Your task to perform on an android device: Open the calendar and show me this week's events? Image 0: 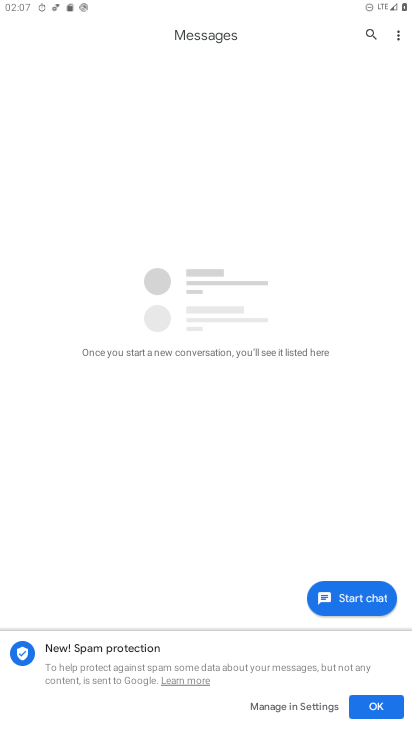
Step 0: press home button
Your task to perform on an android device: Open the calendar and show me this week's events? Image 1: 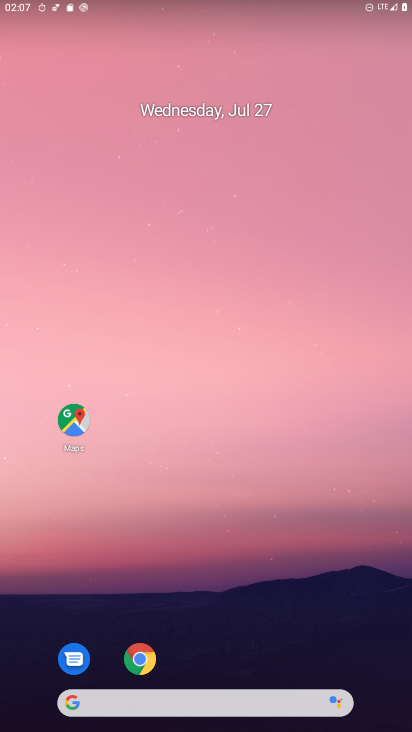
Step 1: drag from (296, 618) to (285, 45)
Your task to perform on an android device: Open the calendar and show me this week's events? Image 2: 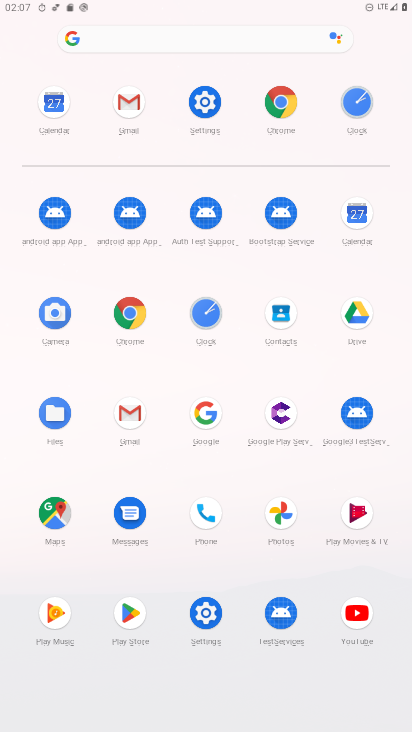
Step 2: click (357, 212)
Your task to perform on an android device: Open the calendar and show me this week's events? Image 3: 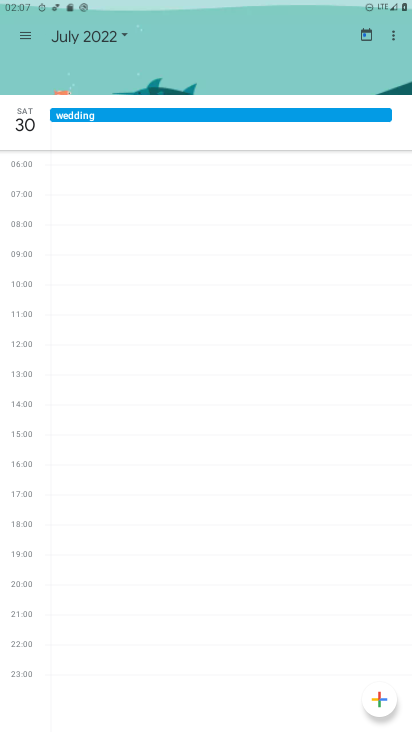
Step 3: click (61, 32)
Your task to perform on an android device: Open the calendar and show me this week's events? Image 4: 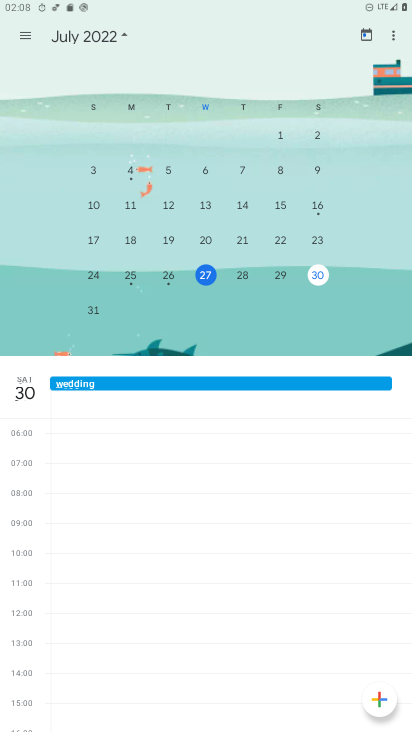
Step 4: click (18, 39)
Your task to perform on an android device: Open the calendar and show me this week's events? Image 5: 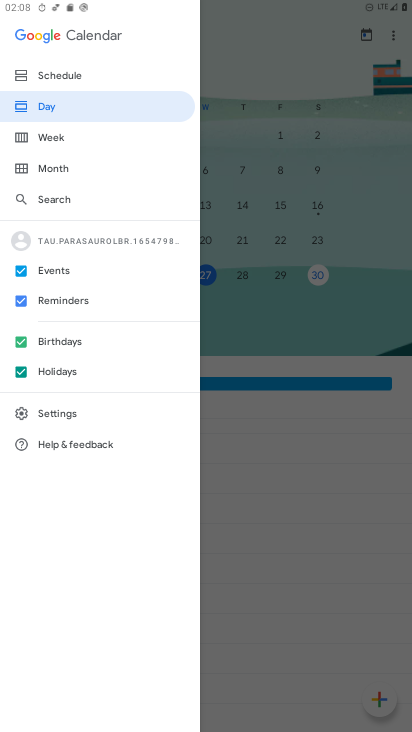
Step 5: click (65, 149)
Your task to perform on an android device: Open the calendar and show me this week's events? Image 6: 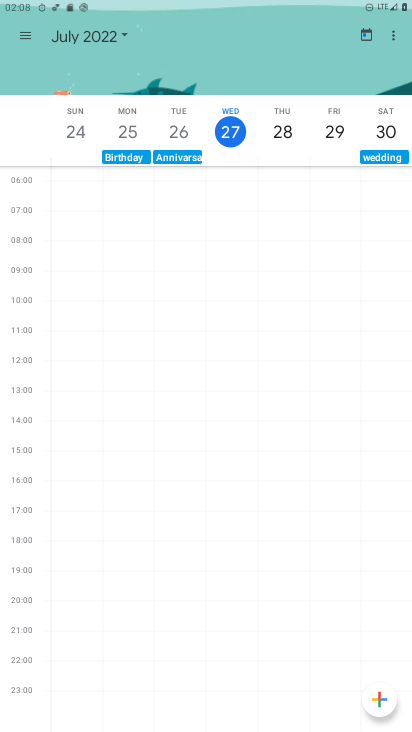
Step 6: task complete